Your task to perform on an android device: uninstall "Yahoo Mail" Image 0: 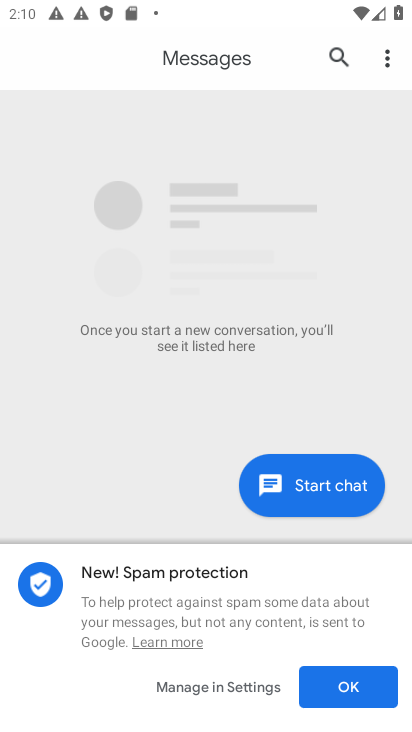
Step 0: press home button
Your task to perform on an android device: uninstall "Yahoo Mail" Image 1: 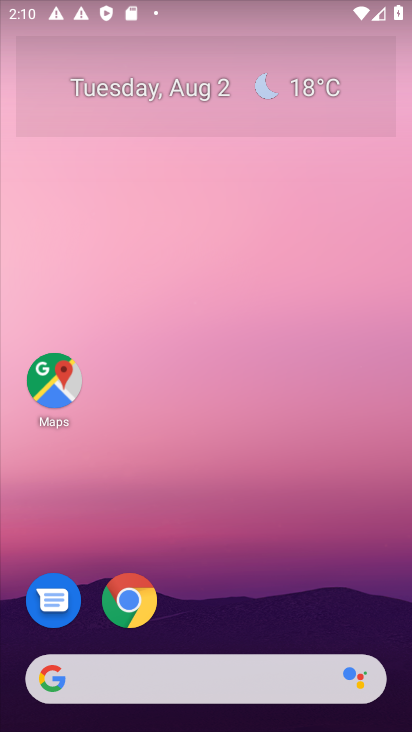
Step 1: drag from (122, 647) to (265, 4)
Your task to perform on an android device: uninstall "Yahoo Mail" Image 2: 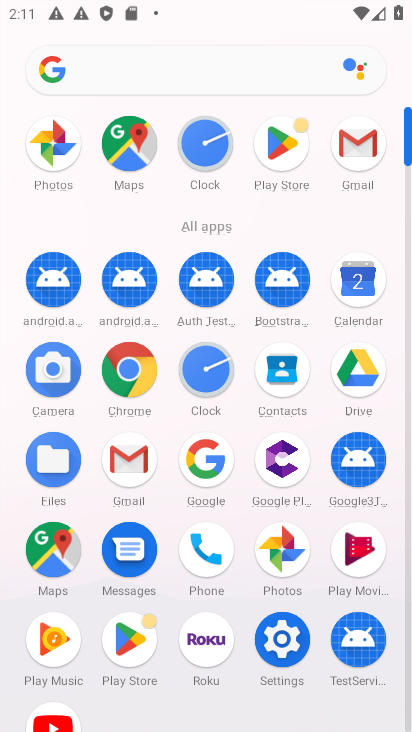
Step 2: click (279, 142)
Your task to perform on an android device: uninstall "Yahoo Mail" Image 3: 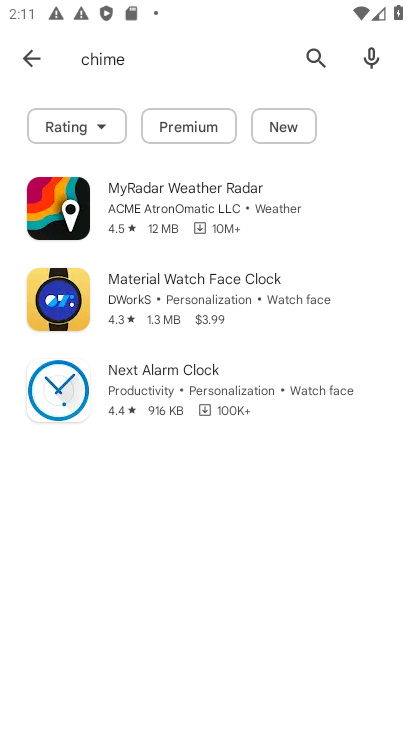
Step 3: click (321, 51)
Your task to perform on an android device: uninstall "Yahoo Mail" Image 4: 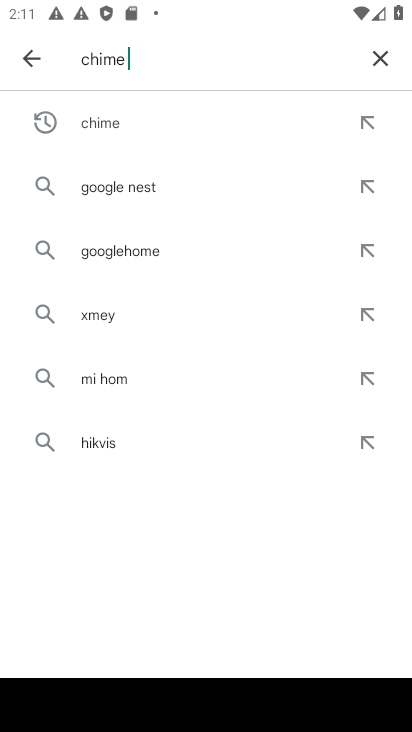
Step 4: click (385, 55)
Your task to perform on an android device: uninstall "Yahoo Mail" Image 5: 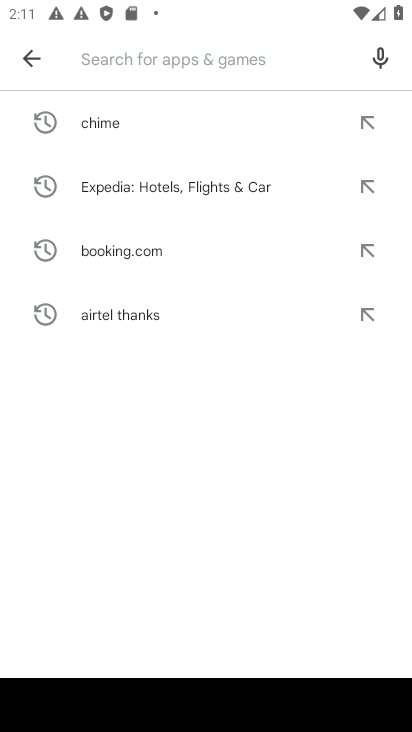
Step 5: type "yahoo mail"
Your task to perform on an android device: uninstall "Yahoo Mail" Image 6: 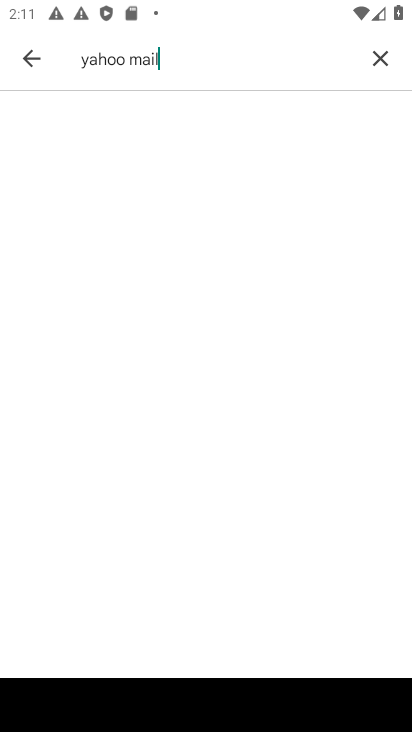
Step 6: press enter
Your task to perform on an android device: uninstall "Yahoo Mail" Image 7: 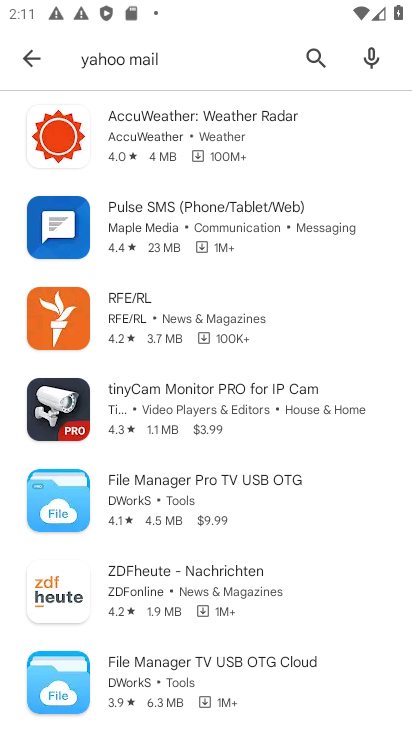
Step 7: task complete